Your task to perform on an android device: Go to network settings Image 0: 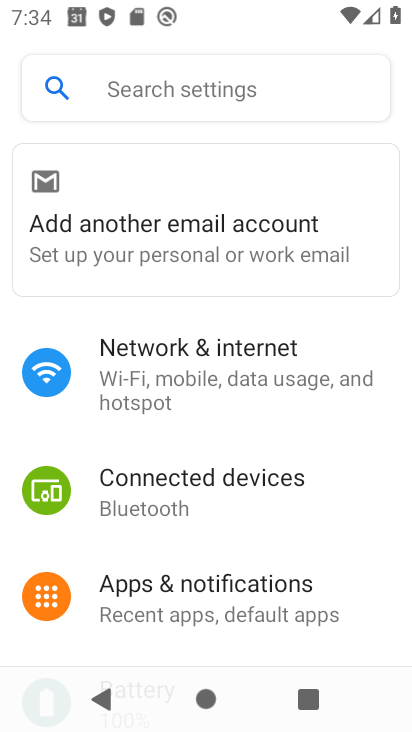
Step 0: click (161, 343)
Your task to perform on an android device: Go to network settings Image 1: 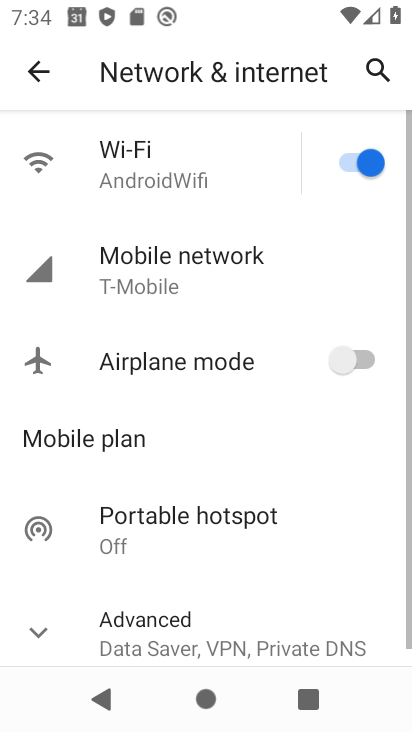
Step 1: click (143, 278)
Your task to perform on an android device: Go to network settings Image 2: 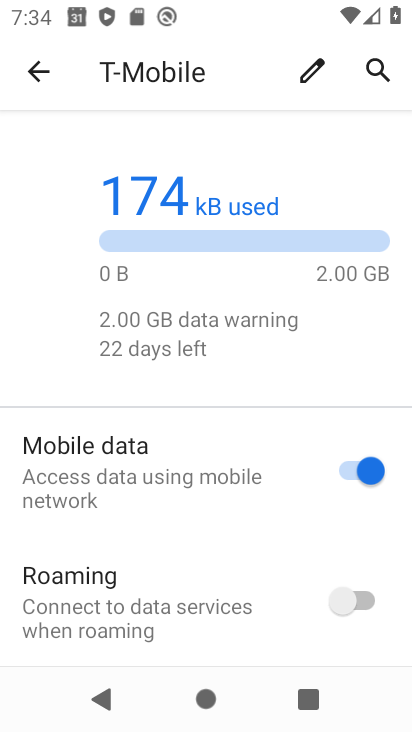
Step 2: task complete